Your task to perform on an android device: add a contact in the contacts app Image 0: 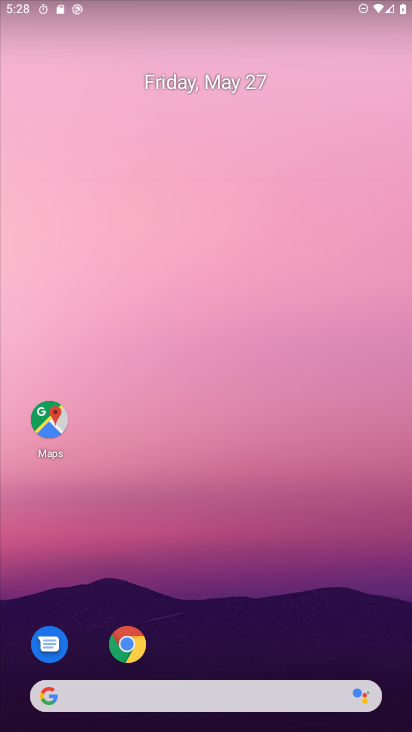
Step 0: drag from (238, 638) to (410, 282)
Your task to perform on an android device: add a contact in the contacts app Image 1: 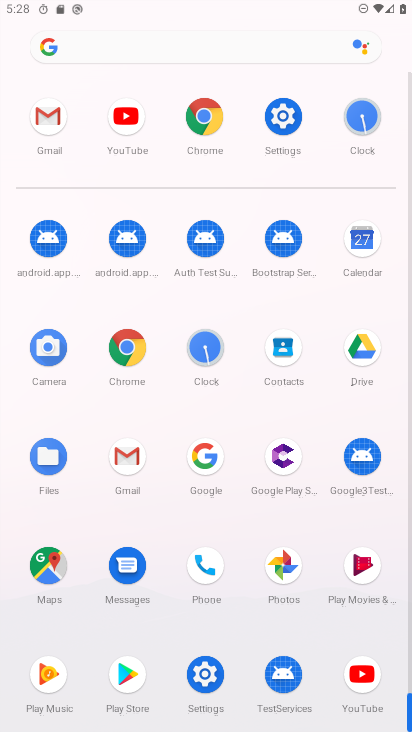
Step 1: click (281, 357)
Your task to perform on an android device: add a contact in the contacts app Image 2: 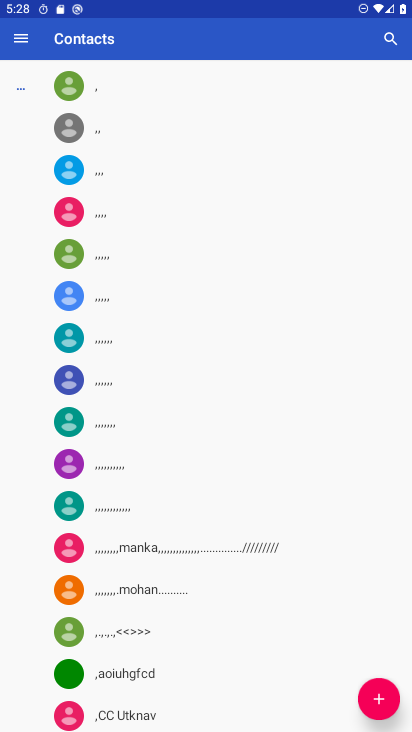
Step 2: click (371, 702)
Your task to perform on an android device: add a contact in the contacts app Image 3: 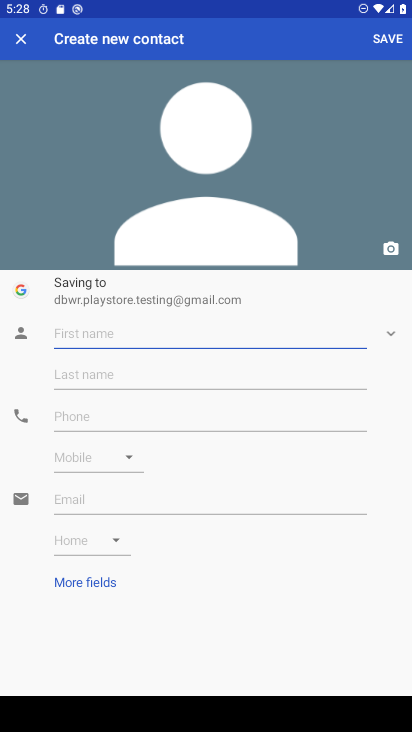
Step 3: type "oiuytfrdcx"
Your task to perform on an android device: add a contact in the contacts app Image 4: 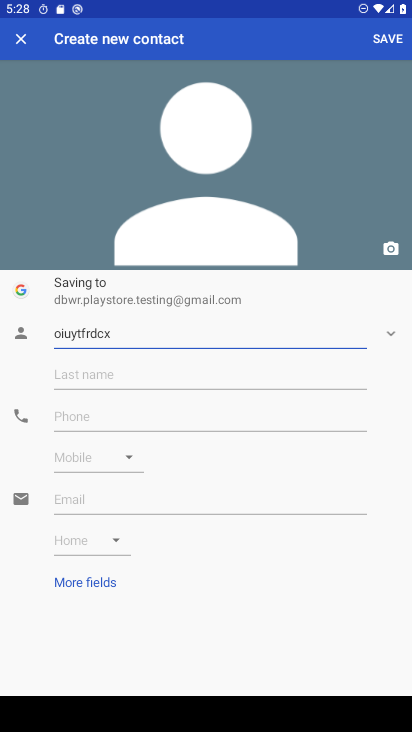
Step 4: click (136, 407)
Your task to perform on an android device: add a contact in the contacts app Image 5: 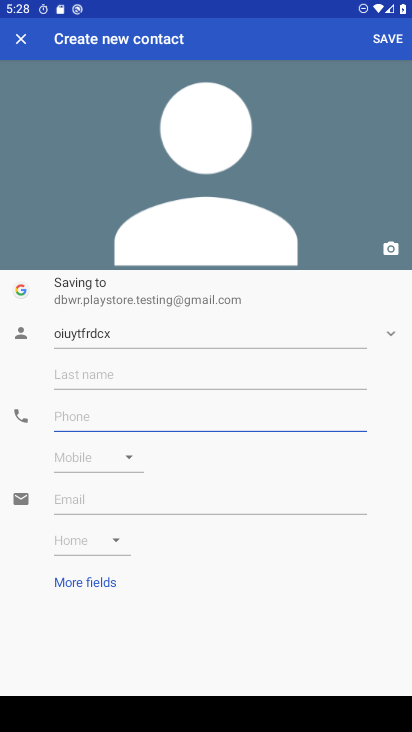
Step 5: type "432354576876"
Your task to perform on an android device: add a contact in the contacts app Image 6: 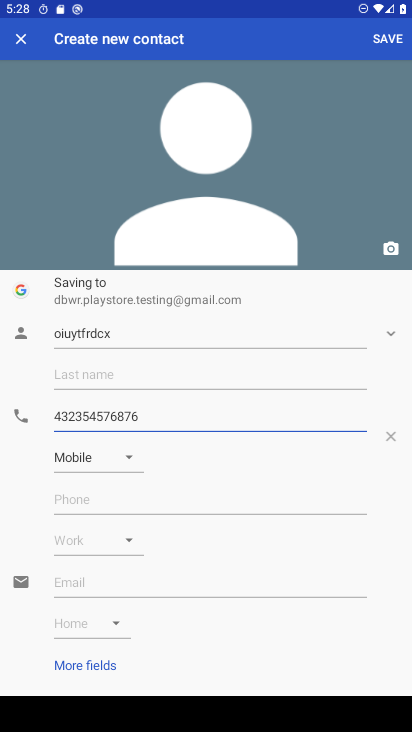
Step 6: click (385, 38)
Your task to perform on an android device: add a contact in the contacts app Image 7: 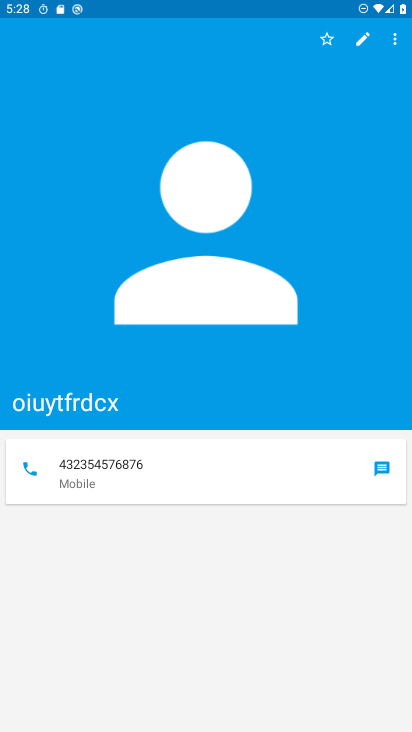
Step 7: task complete